Your task to perform on an android device: turn pop-ups on in chrome Image 0: 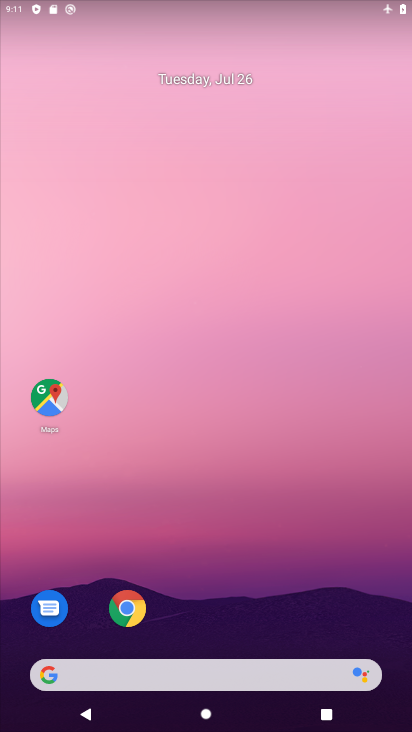
Step 0: click (123, 625)
Your task to perform on an android device: turn pop-ups on in chrome Image 1: 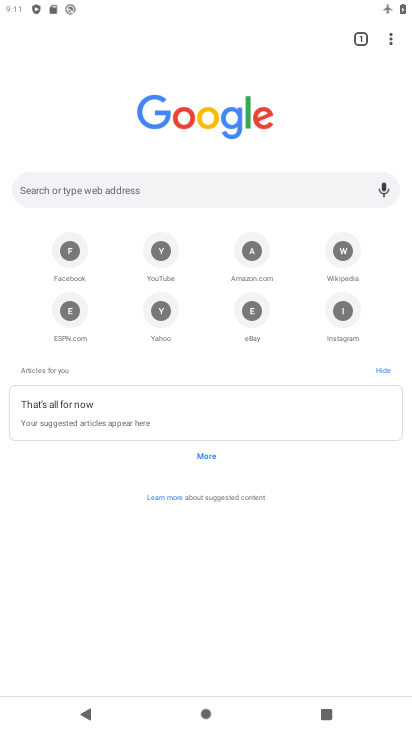
Step 1: click (393, 38)
Your task to perform on an android device: turn pop-ups on in chrome Image 2: 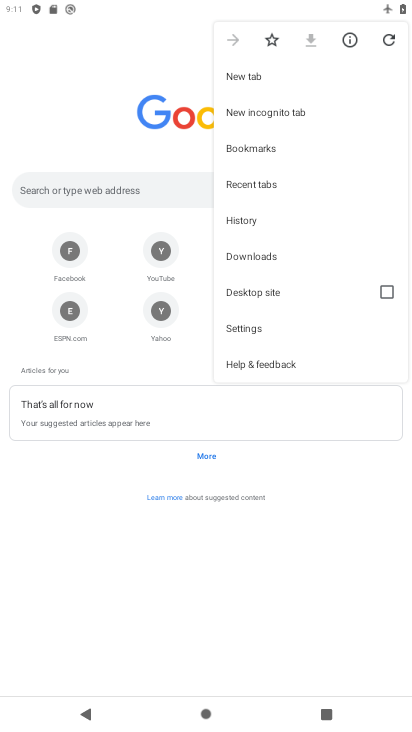
Step 2: click (262, 328)
Your task to perform on an android device: turn pop-ups on in chrome Image 3: 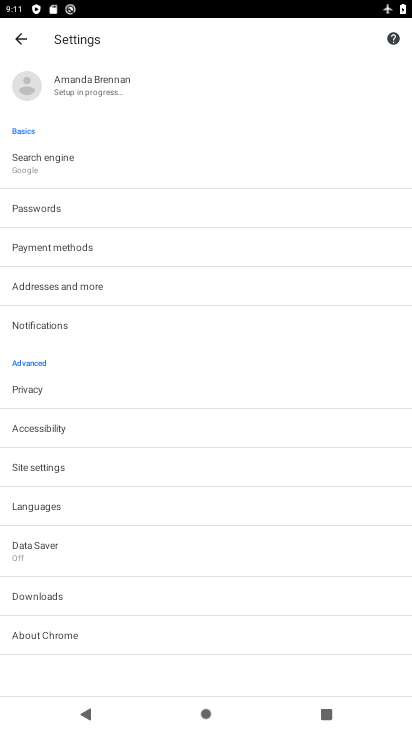
Step 3: click (64, 474)
Your task to perform on an android device: turn pop-ups on in chrome Image 4: 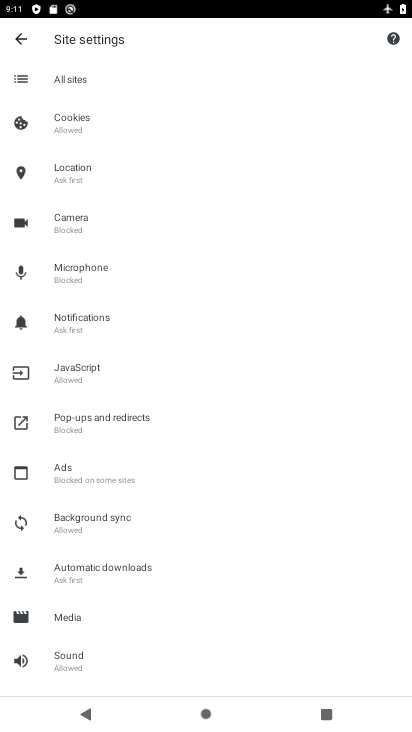
Step 4: click (82, 416)
Your task to perform on an android device: turn pop-ups on in chrome Image 5: 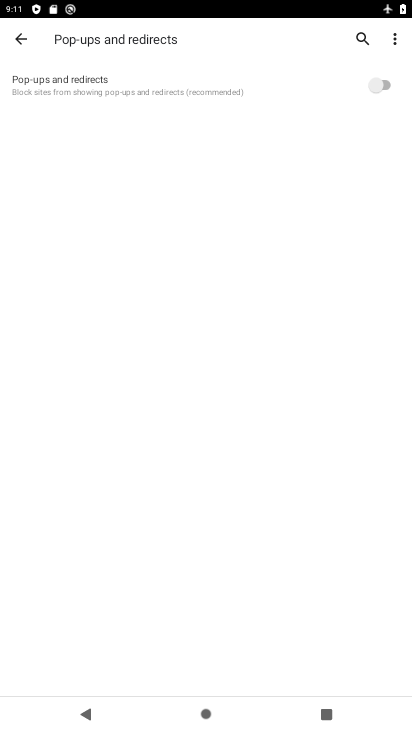
Step 5: click (384, 85)
Your task to perform on an android device: turn pop-ups on in chrome Image 6: 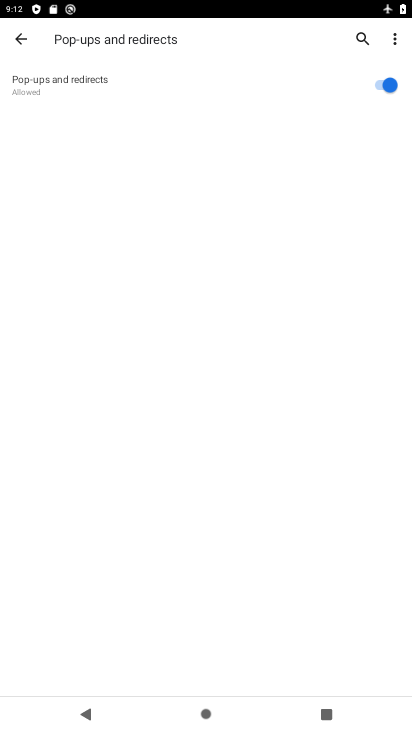
Step 6: task complete